Your task to perform on an android device: Search for sushi restaurants on Maps Image 0: 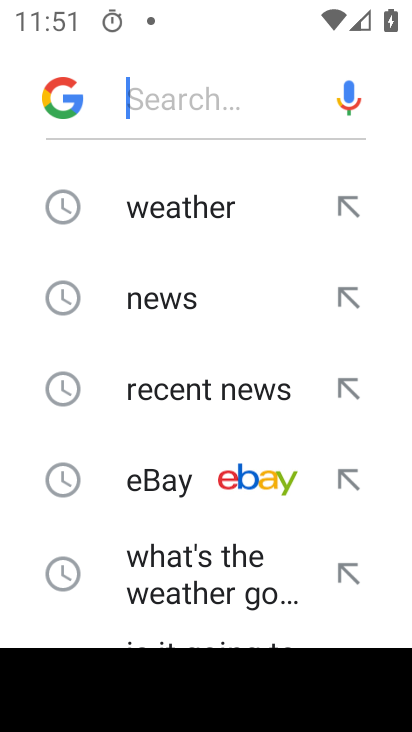
Step 0: press back button
Your task to perform on an android device: Search for sushi restaurants on Maps Image 1: 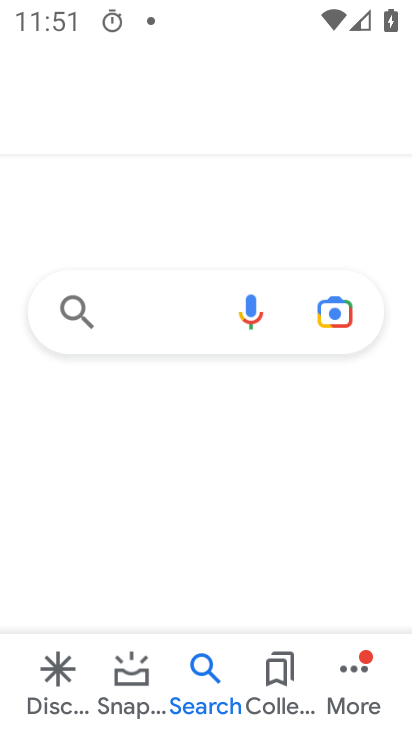
Step 1: press back button
Your task to perform on an android device: Search for sushi restaurants on Maps Image 2: 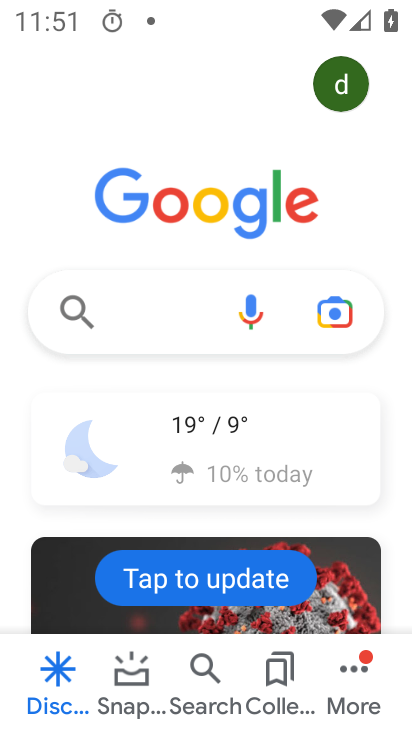
Step 2: press back button
Your task to perform on an android device: Search for sushi restaurants on Maps Image 3: 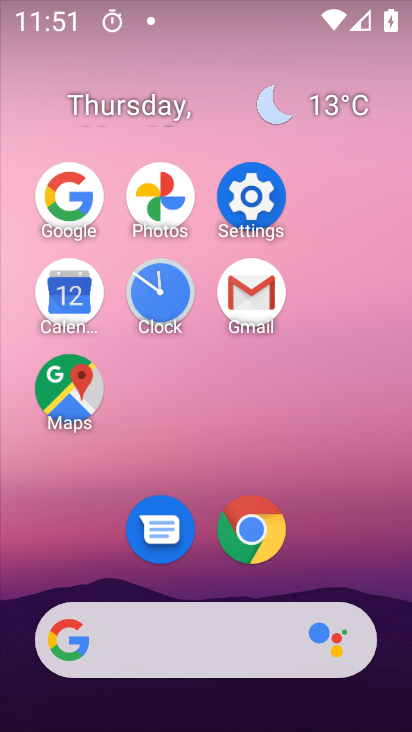
Step 3: click (79, 392)
Your task to perform on an android device: Search for sushi restaurants on Maps Image 4: 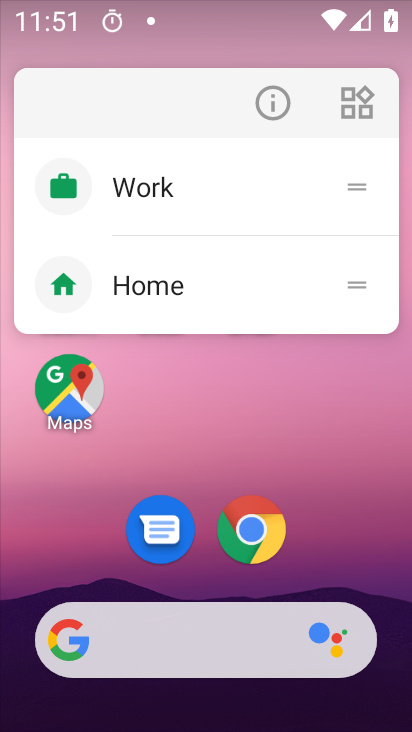
Step 4: click (84, 378)
Your task to perform on an android device: Search for sushi restaurants on Maps Image 5: 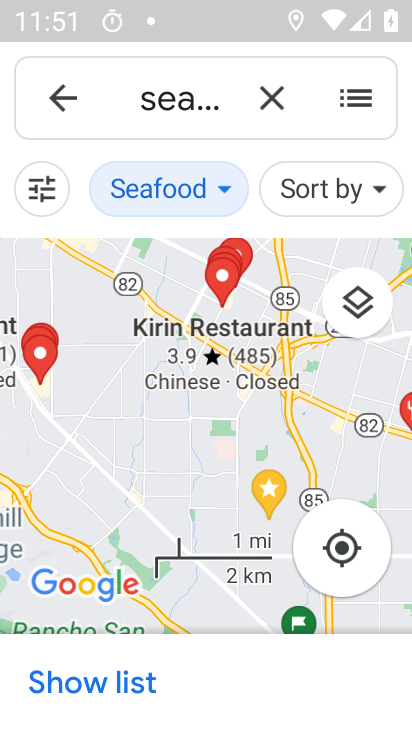
Step 5: click (285, 100)
Your task to perform on an android device: Search for sushi restaurants on Maps Image 6: 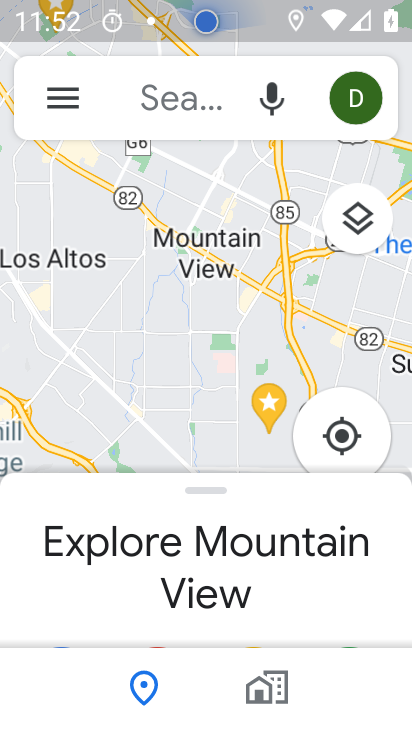
Step 6: click (192, 114)
Your task to perform on an android device: Search for sushi restaurants on Maps Image 7: 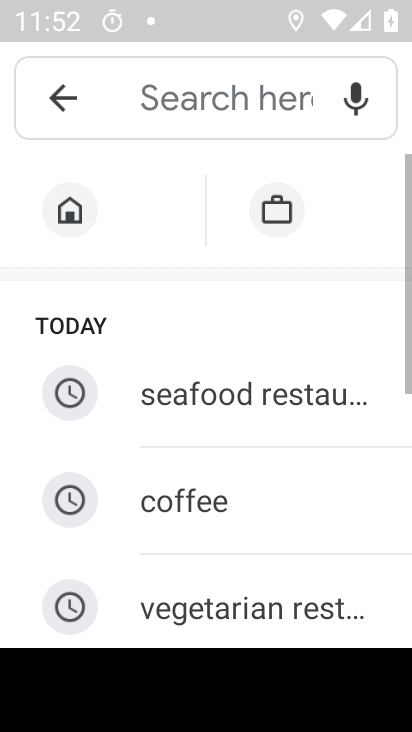
Step 7: drag from (234, 575) to (229, 202)
Your task to perform on an android device: Search for sushi restaurants on Maps Image 8: 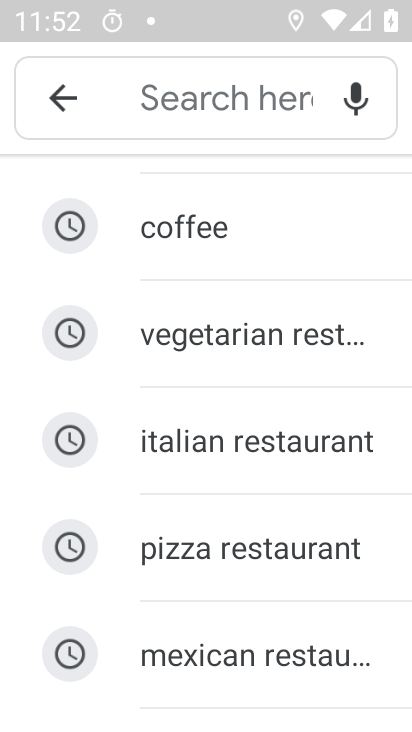
Step 8: drag from (244, 544) to (290, 186)
Your task to perform on an android device: Search for sushi restaurants on Maps Image 9: 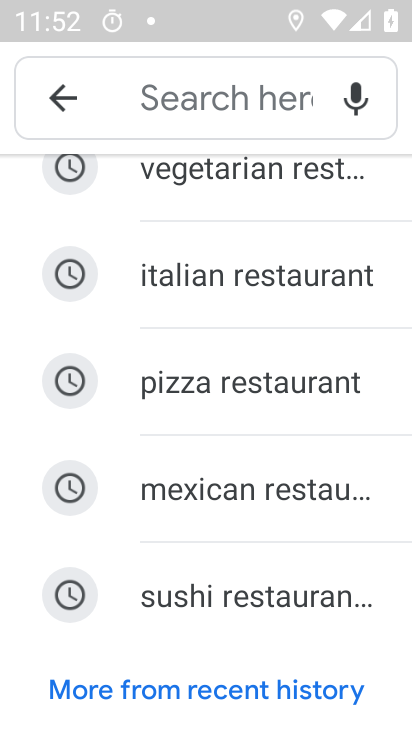
Step 9: click (229, 585)
Your task to perform on an android device: Search for sushi restaurants on Maps Image 10: 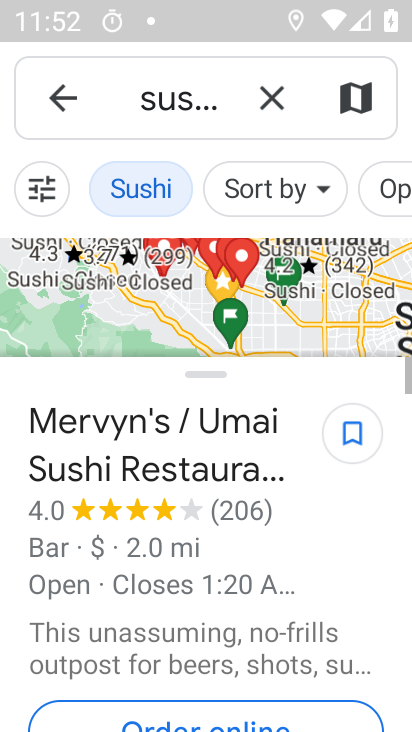
Step 10: task complete